Your task to perform on an android device: toggle location history Image 0: 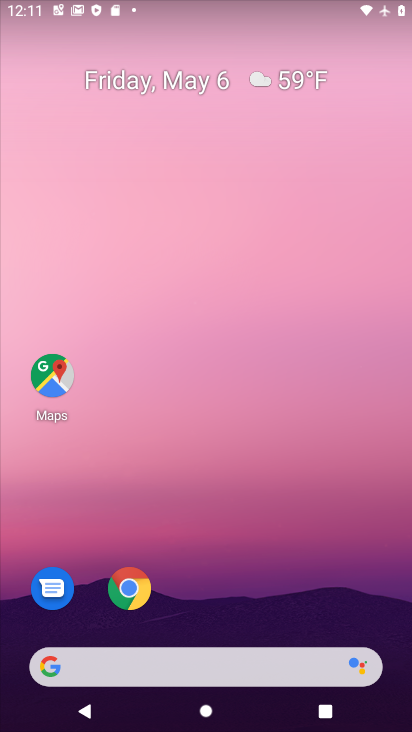
Step 0: drag from (170, 671) to (333, 134)
Your task to perform on an android device: toggle location history Image 1: 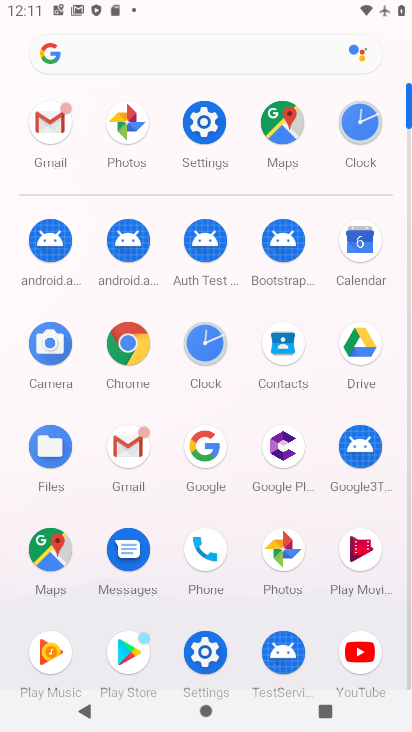
Step 1: click (205, 657)
Your task to perform on an android device: toggle location history Image 2: 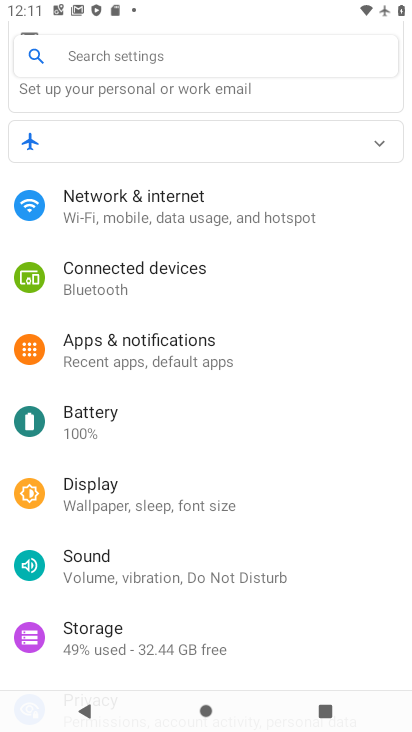
Step 2: drag from (191, 587) to (355, 109)
Your task to perform on an android device: toggle location history Image 3: 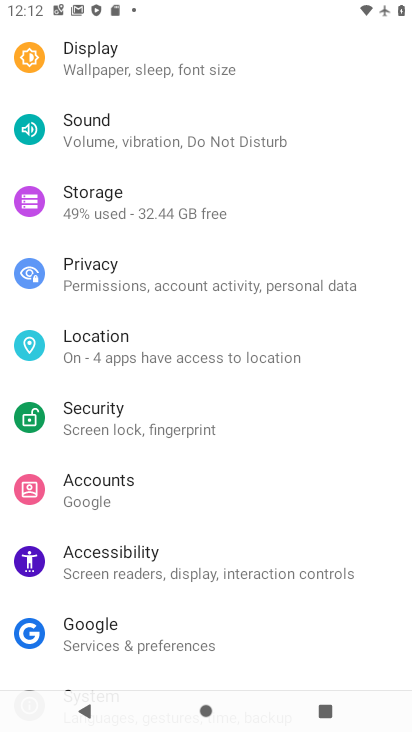
Step 3: click (144, 354)
Your task to perform on an android device: toggle location history Image 4: 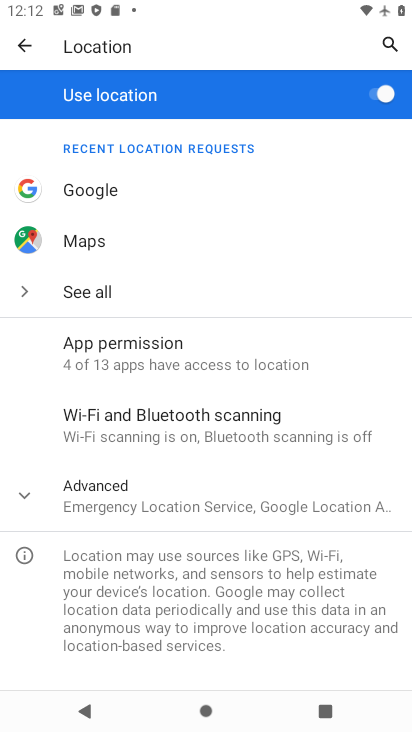
Step 4: click (120, 491)
Your task to perform on an android device: toggle location history Image 5: 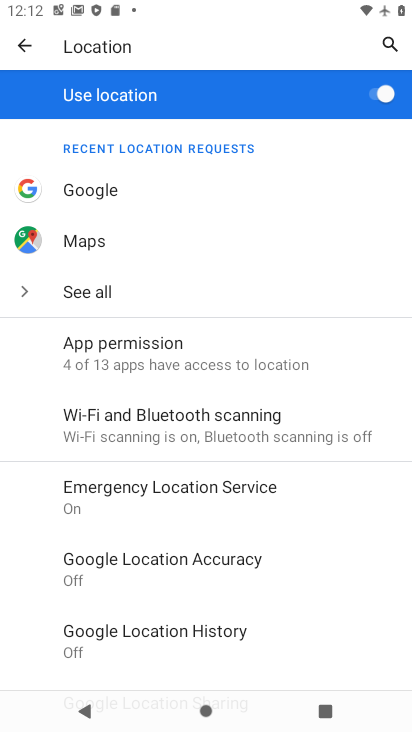
Step 5: click (170, 628)
Your task to perform on an android device: toggle location history Image 6: 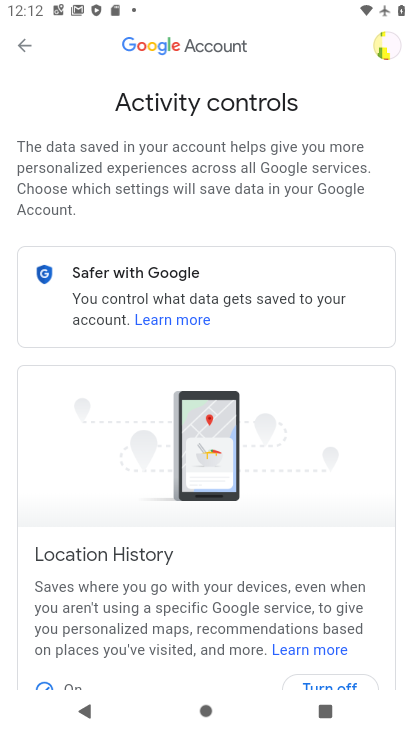
Step 6: drag from (192, 593) to (318, 143)
Your task to perform on an android device: toggle location history Image 7: 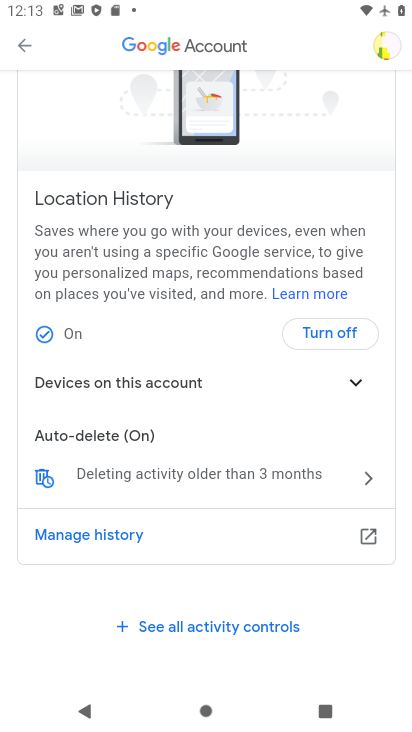
Step 7: click (333, 330)
Your task to perform on an android device: toggle location history Image 8: 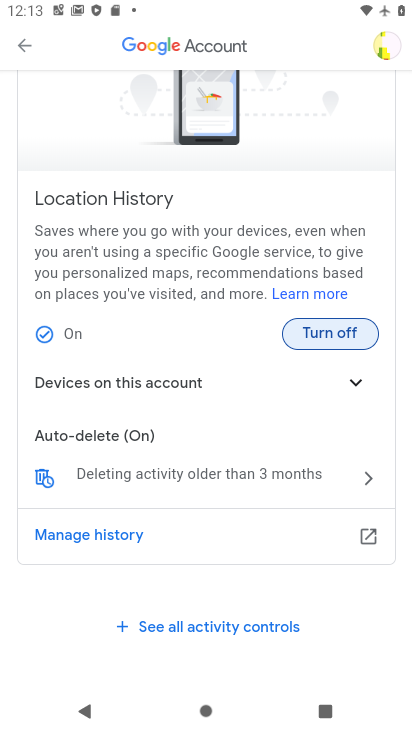
Step 8: click (333, 335)
Your task to perform on an android device: toggle location history Image 9: 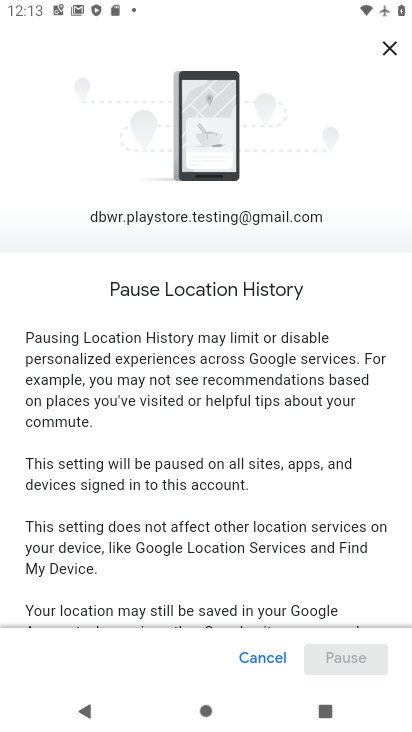
Step 9: drag from (277, 608) to (389, 188)
Your task to perform on an android device: toggle location history Image 10: 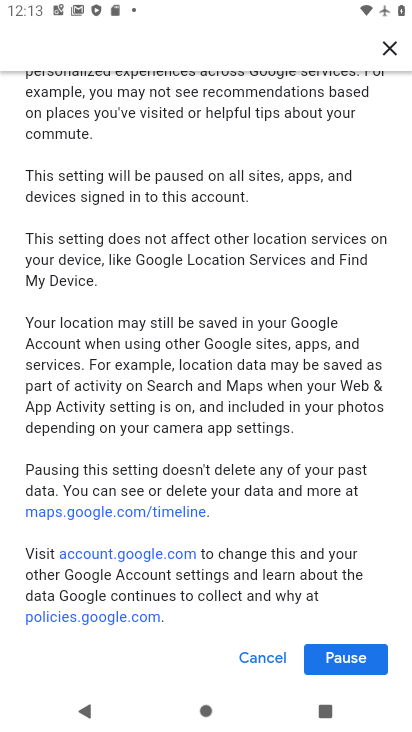
Step 10: click (342, 660)
Your task to perform on an android device: toggle location history Image 11: 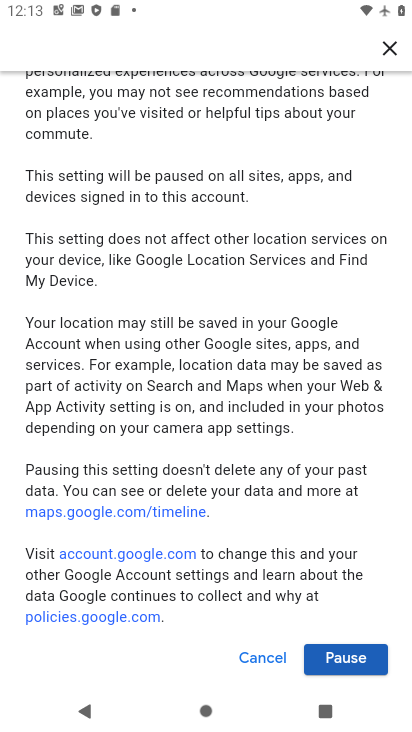
Step 11: click (349, 663)
Your task to perform on an android device: toggle location history Image 12: 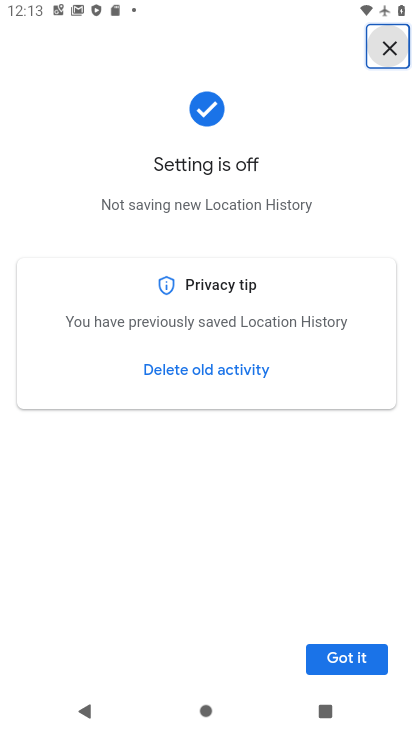
Step 12: click (349, 656)
Your task to perform on an android device: toggle location history Image 13: 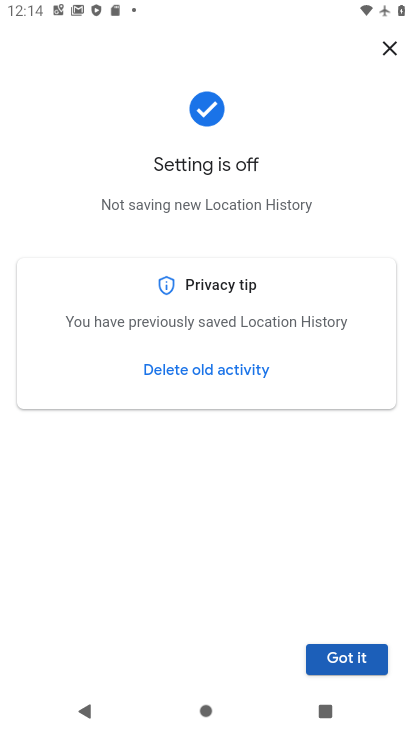
Step 13: task complete